Your task to perform on an android device: turn on improve location accuracy Image 0: 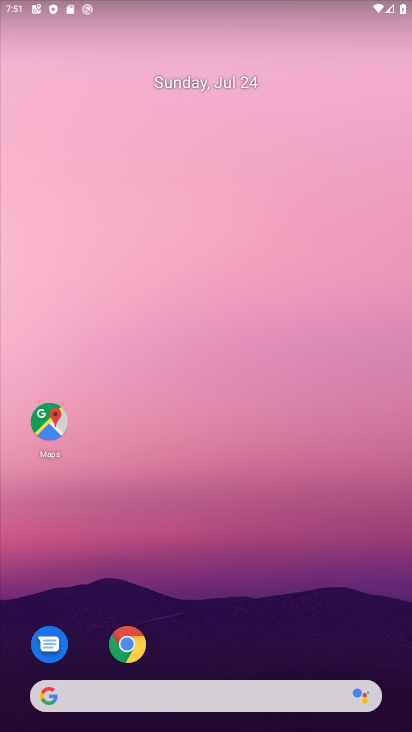
Step 0: drag from (346, 634) to (355, 4)
Your task to perform on an android device: turn on improve location accuracy Image 1: 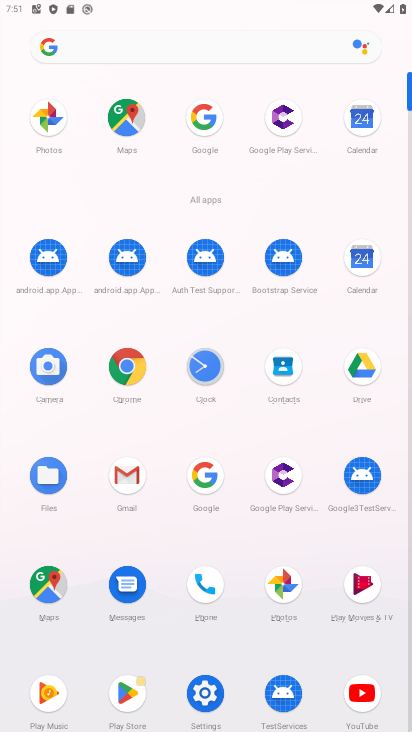
Step 1: click (194, 698)
Your task to perform on an android device: turn on improve location accuracy Image 2: 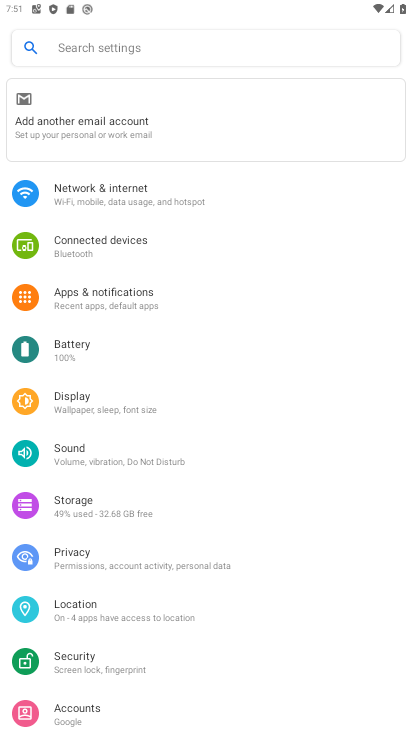
Step 2: click (102, 608)
Your task to perform on an android device: turn on improve location accuracy Image 3: 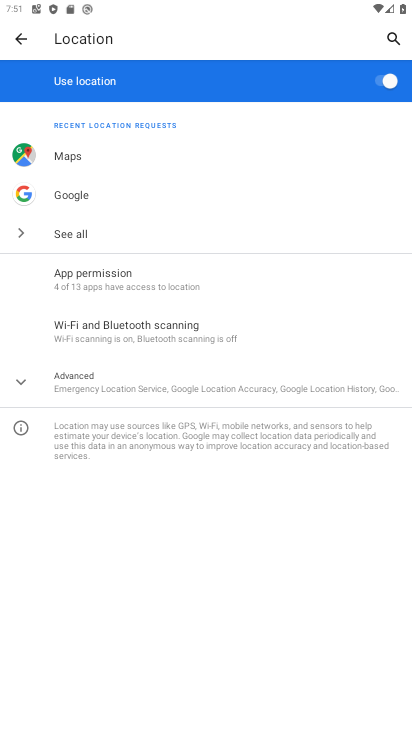
Step 3: click (144, 379)
Your task to perform on an android device: turn on improve location accuracy Image 4: 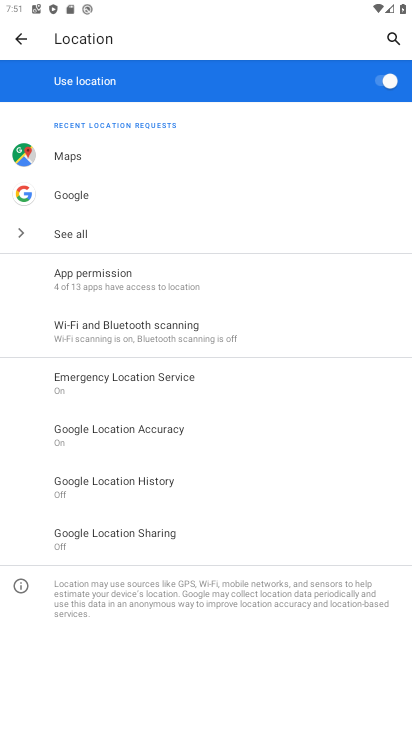
Step 4: click (190, 433)
Your task to perform on an android device: turn on improve location accuracy Image 5: 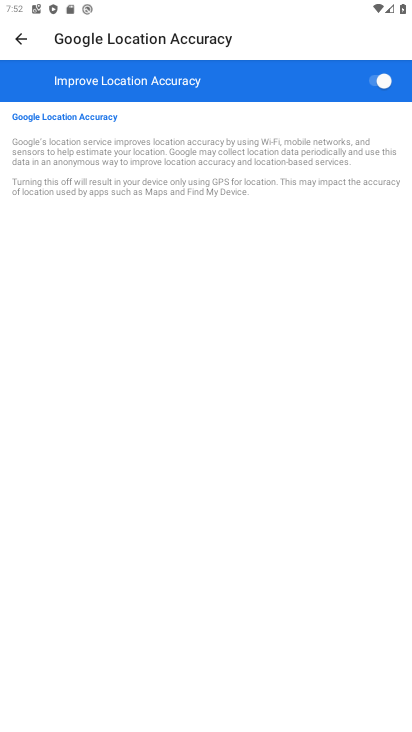
Step 5: task complete